Your task to perform on an android device: Clear the shopping cart on ebay. Image 0: 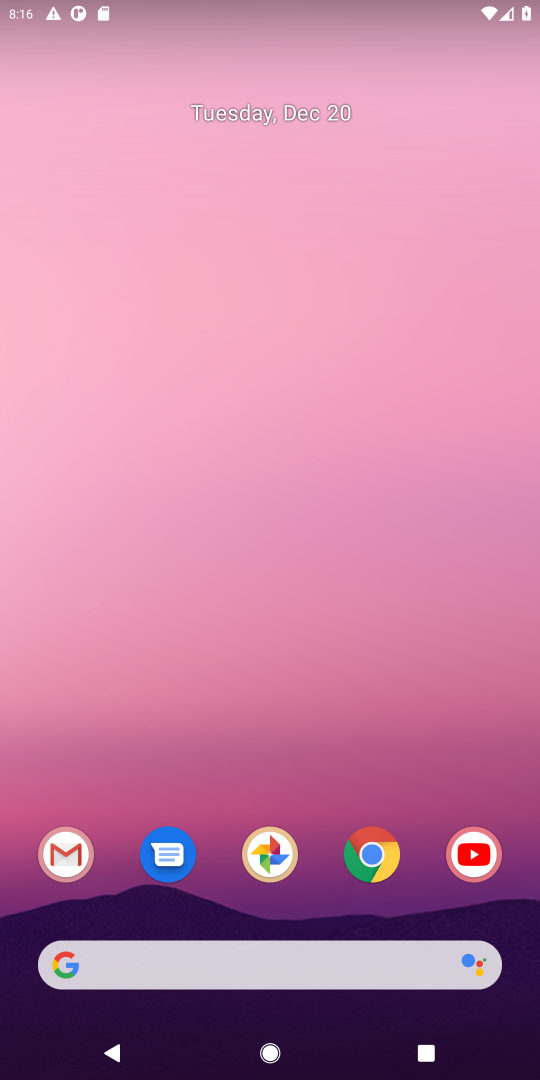
Step 0: click (380, 863)
Your task to perform on an android device: Clear the shopping cart on ebay. Image 1: 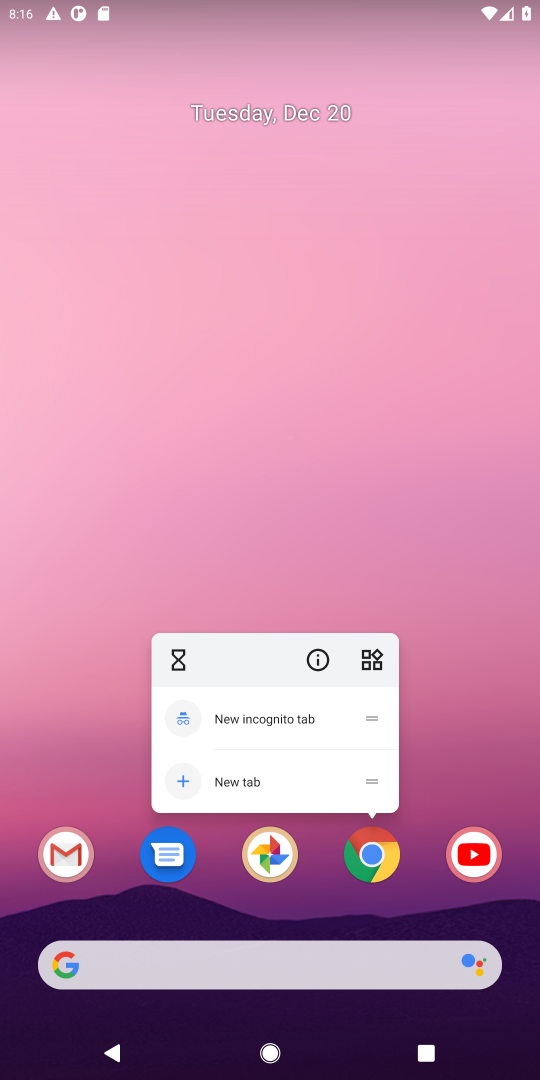
Step 1: click (370, 863)
Your task to perform on an android device: Clear the shopping cart on ebay. Image 2: 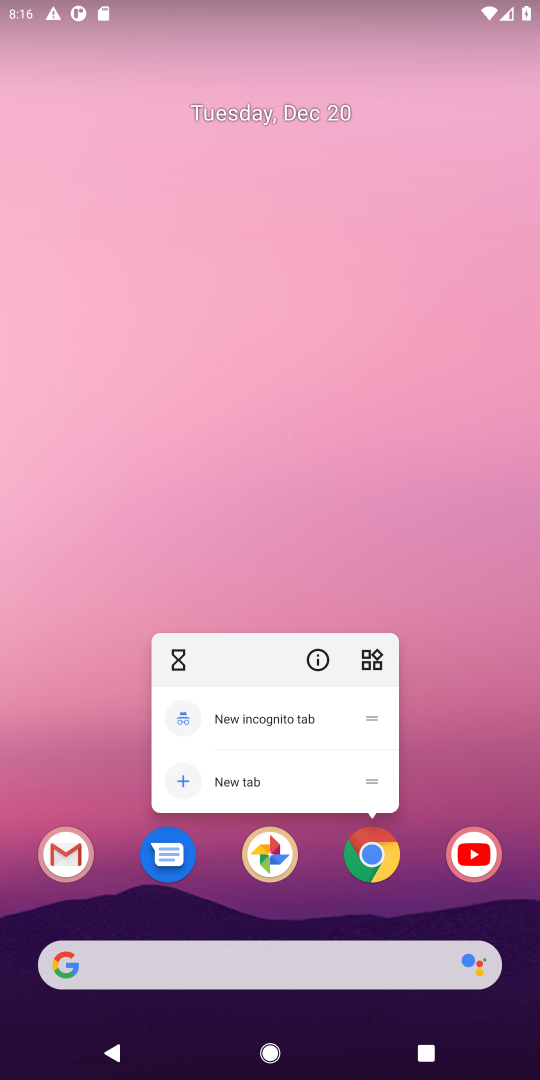
Step 2: click (370, 863)
Your task to perform on an android device: Clear the shopping cart on ebay. Image 3: 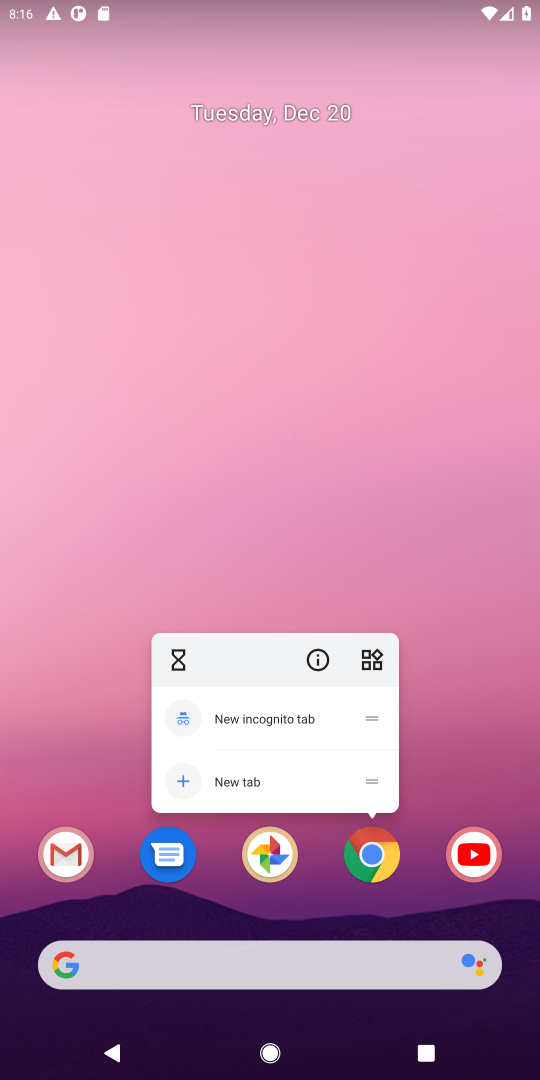
Step 3: click (370, 863)
Your task to perform on an android device: Clear the shopping cart on ebay. Image 4: 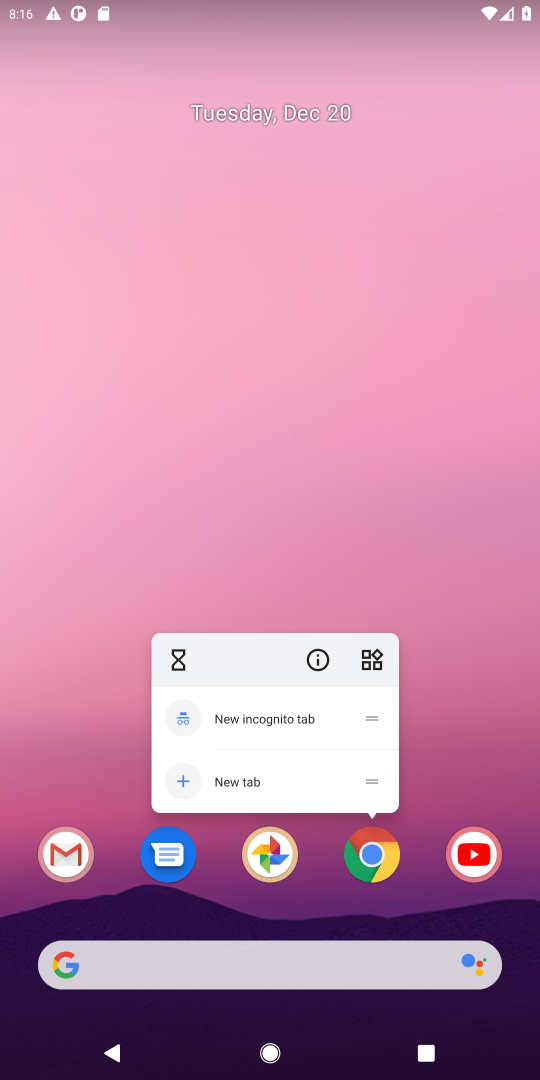
Step 4: click (371, 858)
Your task to perform on an android device: Clear the shopping cart on ebay. Image 5: 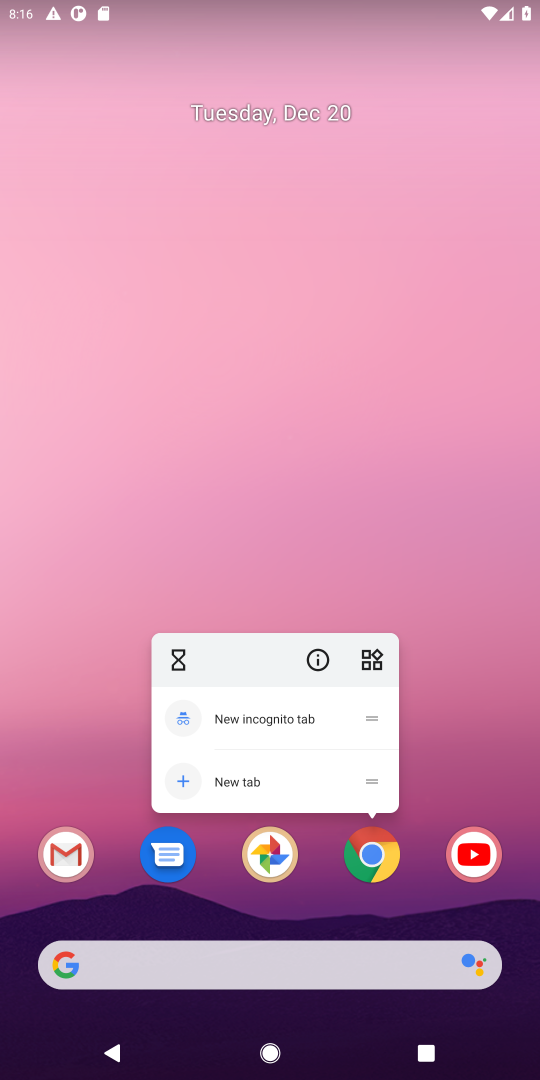
Step 5: click (371, 858)
Your task to perform on an android device: Clear the shopping cart on ebay. Image 6: 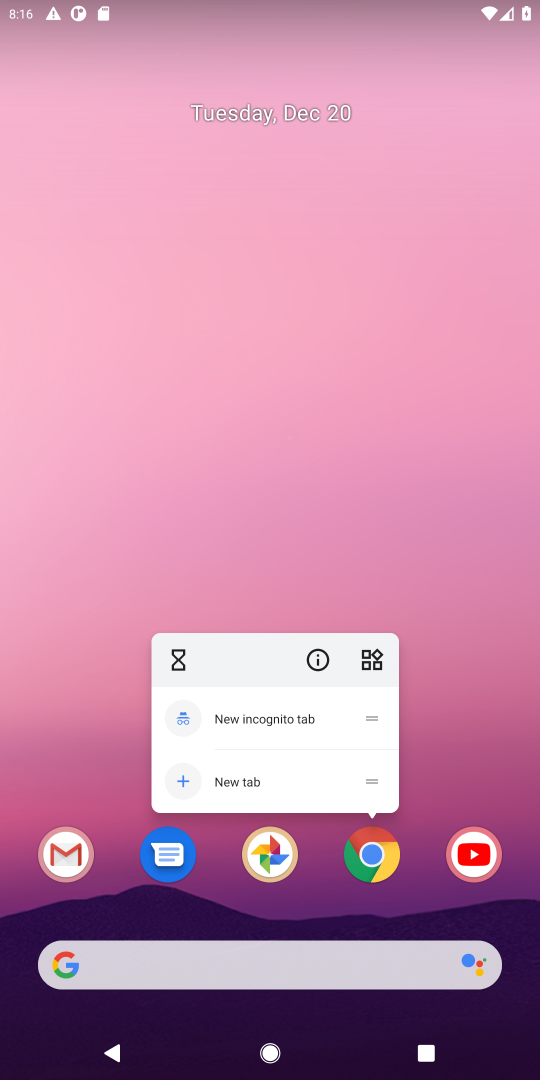
Step 6: click (371, 858)
Your task to perform on an android device: Clear the shopping cart on ebay. Image 7: 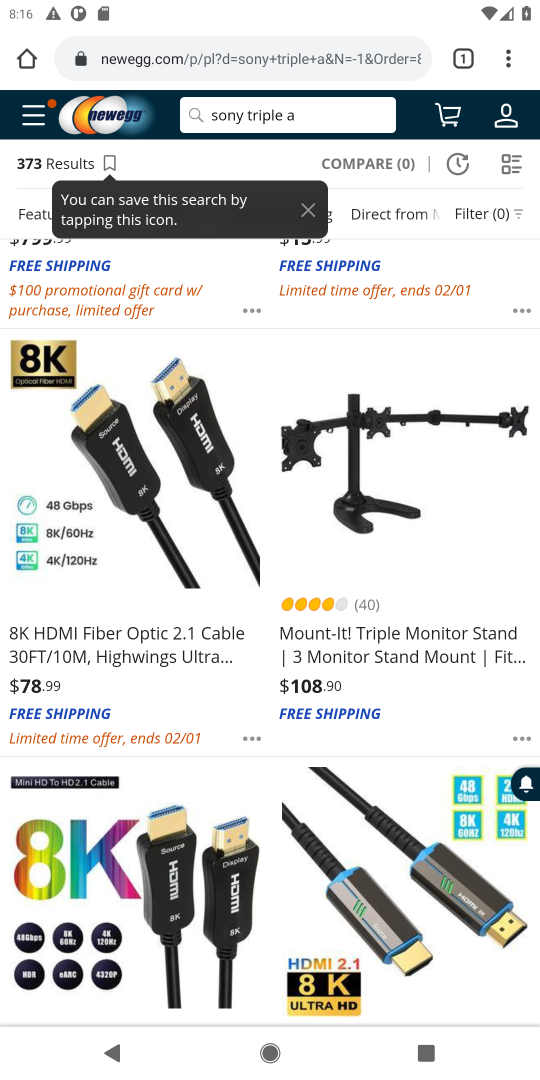
Step 7: click (174, 54)
Your task to perform on an android device: Clear the shopping cart on ebay. Image 8: 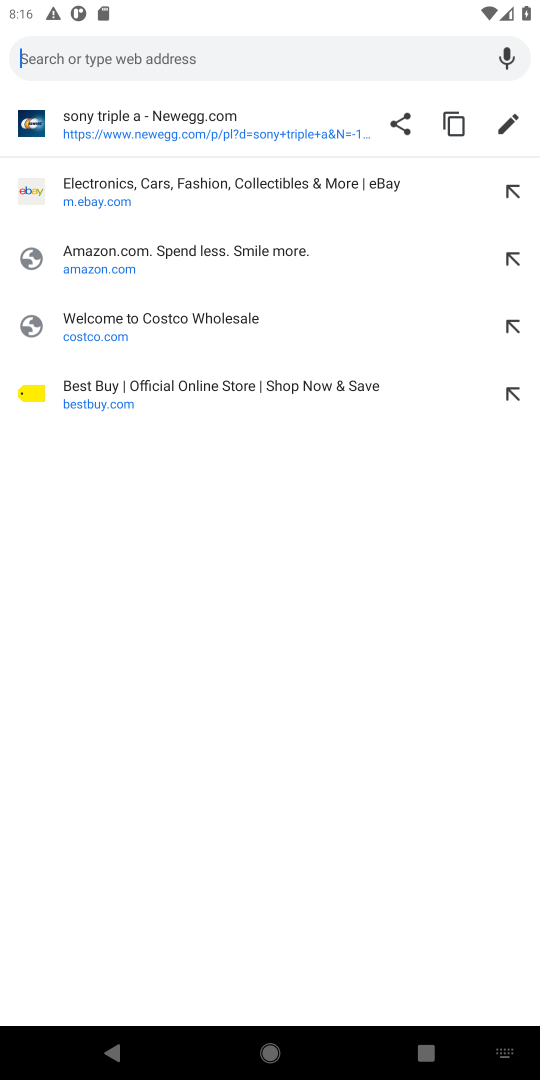
Step 8: click (89, 201)
Your task to perform on an android device: Clear the shopping cart on ebay. Image 9: 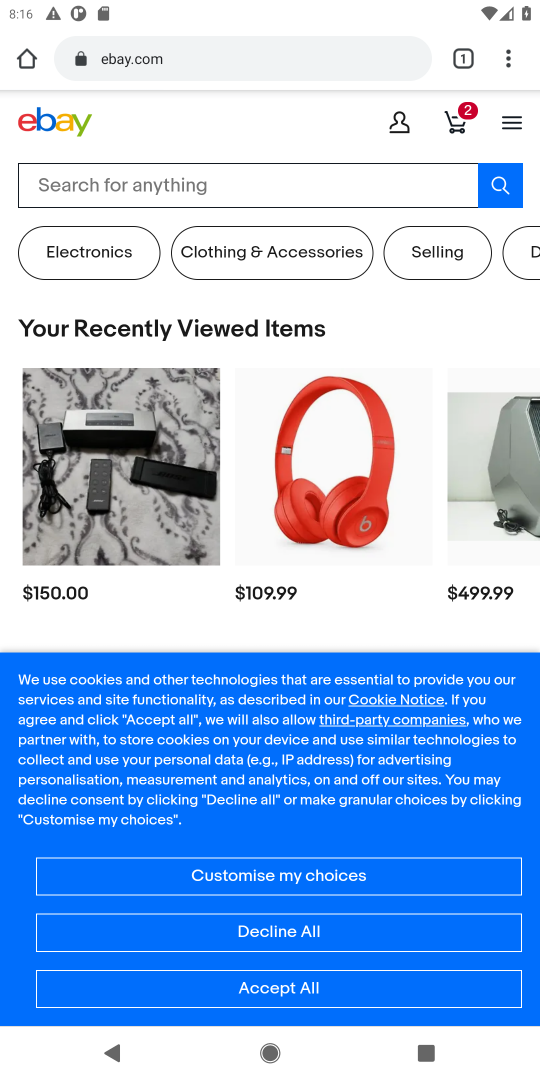
Step 9: click (454, 121)
Your task to perform on an android device: Clear the shopping cart on ebay. Image 10: 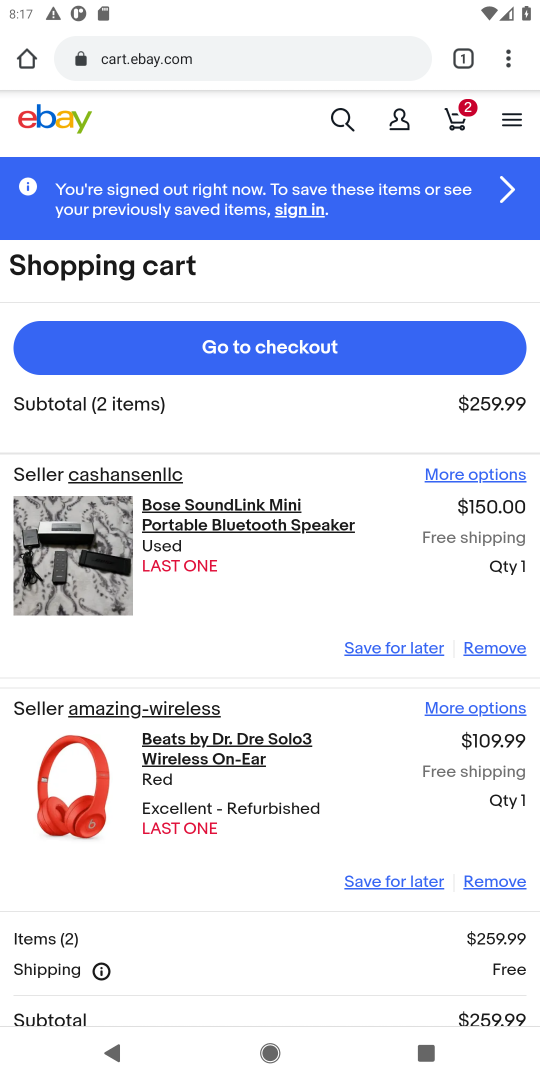
Step 10: click (493, 653)
Your task to perform on an android device: Clear the shopping cart on ebay. Image 11: 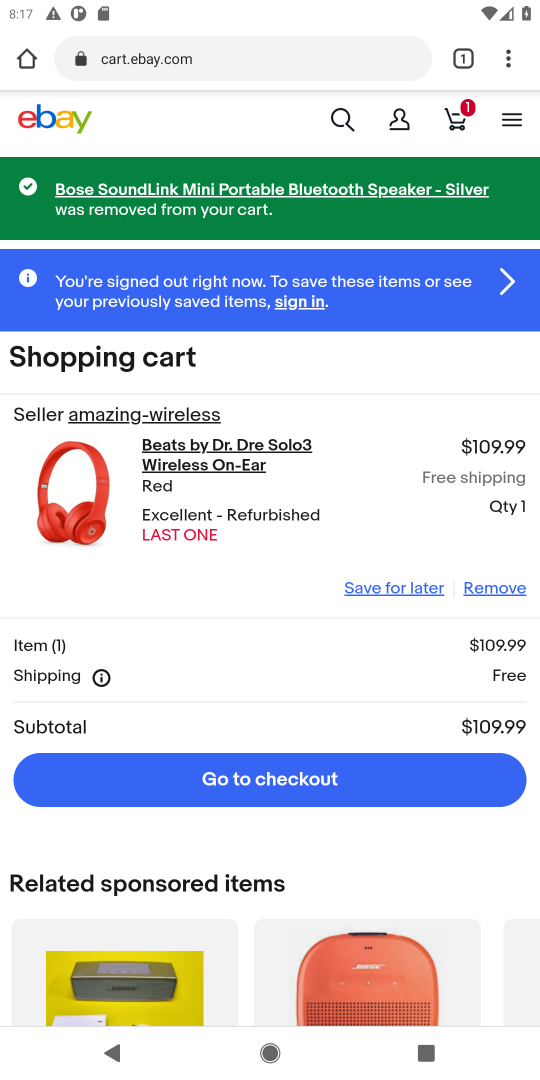
Step 11: click (485, 588)
Your task to perform on an android device: Clear the shopping cart on ebay. Image 12: 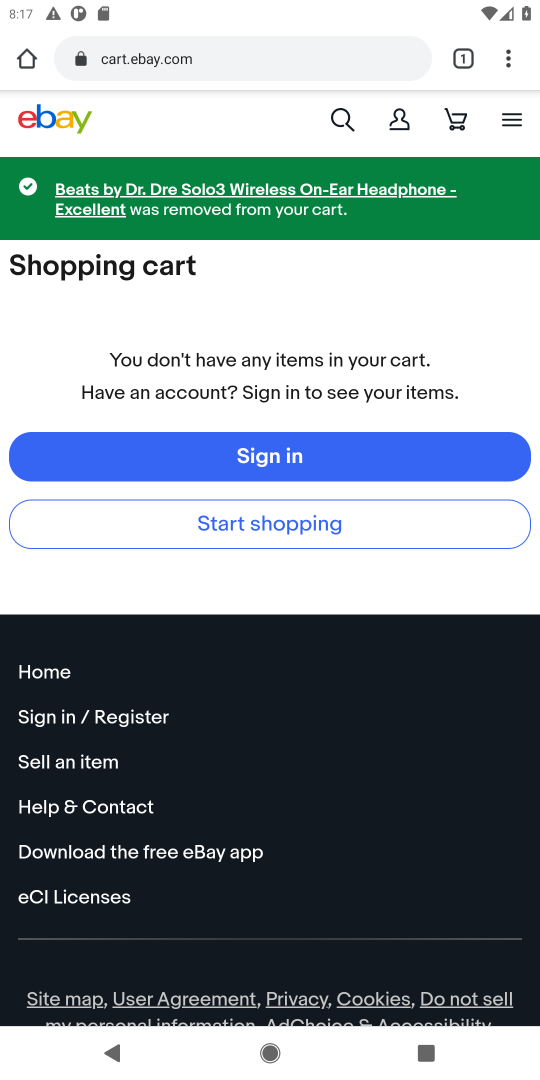
Step 12: task complete